Your task to perform on an android device: Open wifi settings Image 0: 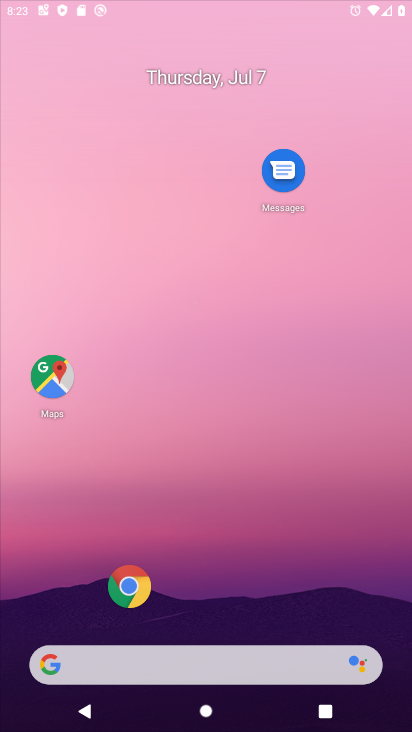
Step 0: click (339, 20)
Your task to perform on an android device: Open wifi settings Image 1: 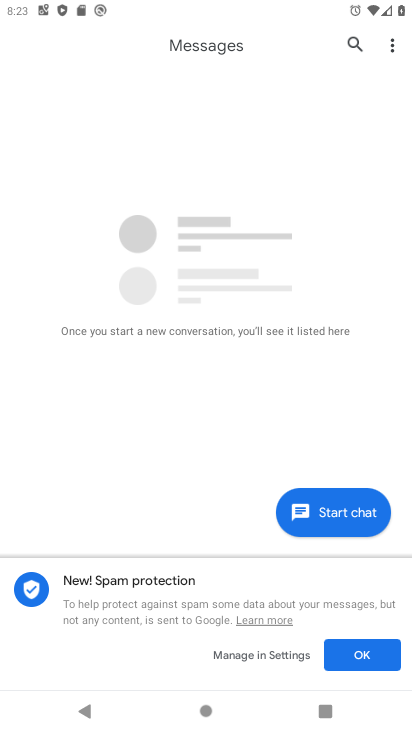
Step 1: press home button
Your task to perform on an android device: Open wifi settings Image 2: 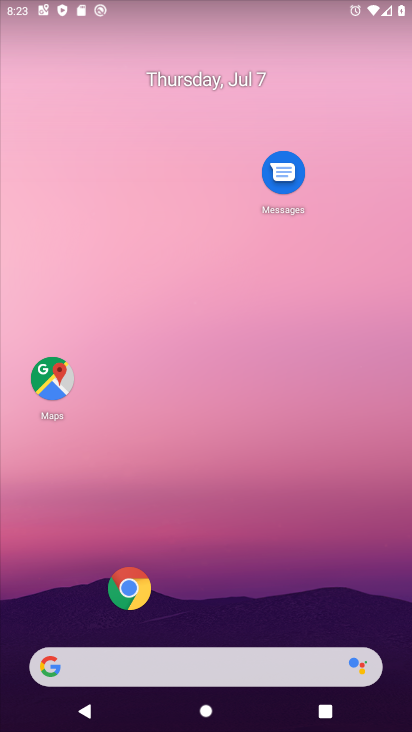
Step 2: drag from (23, 709) to (287, 16)
Your task to perform on an android device: Open wifi settings Image 3: 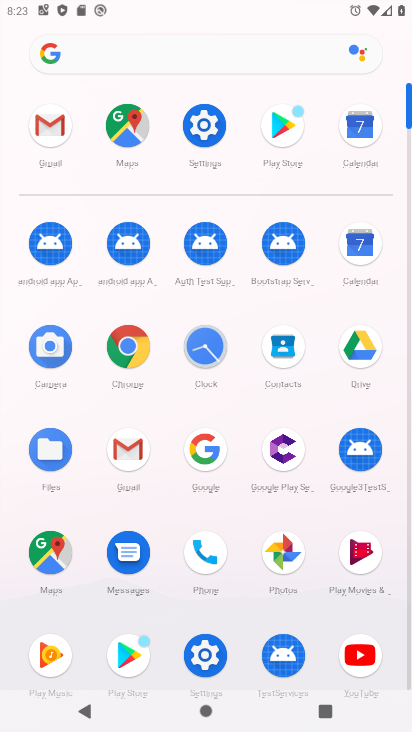
Step 3: click (214, 662)
Your task to perform on an android device: Open wifi settings Image 4: 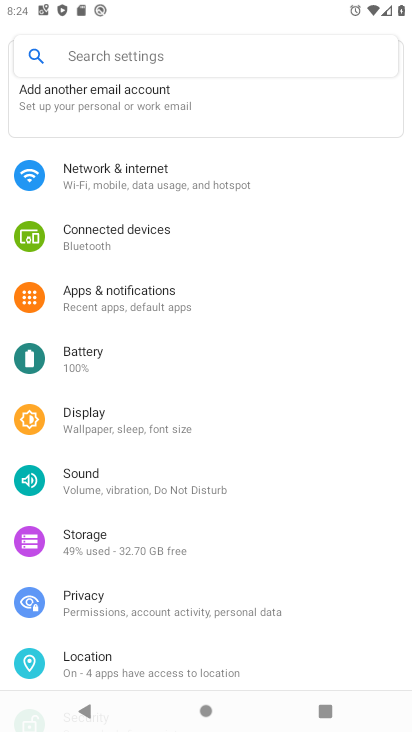
Step 4: click (110, 143)
Your task to perform on an android device: Open wifi settings Image 5: 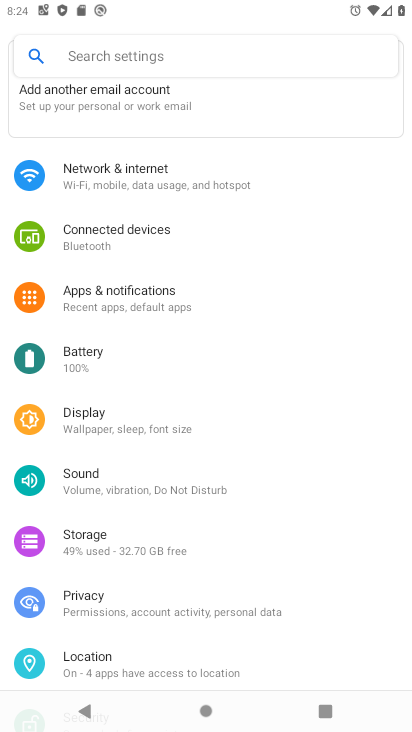
Step 5: click (104, 155)
Your task to perform on an android device: Open wifi settings Image 6: 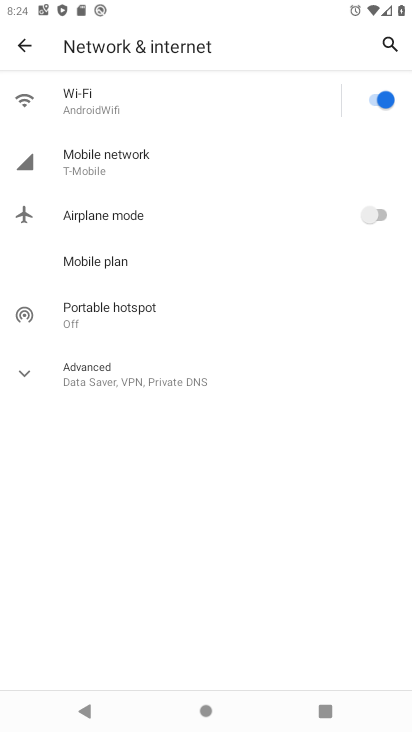
Step 6: click (94, 91)
Your task to perform on an android device: Open wifi settings Image 7: 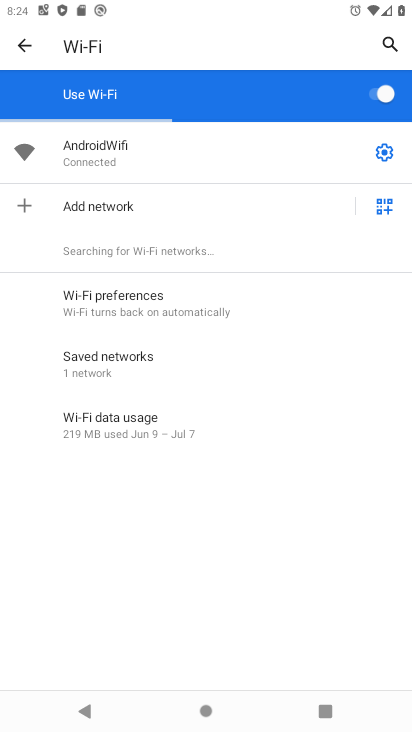
Step 7: task complete